Your task to perform on an android device: set the stopwatch Image 0: 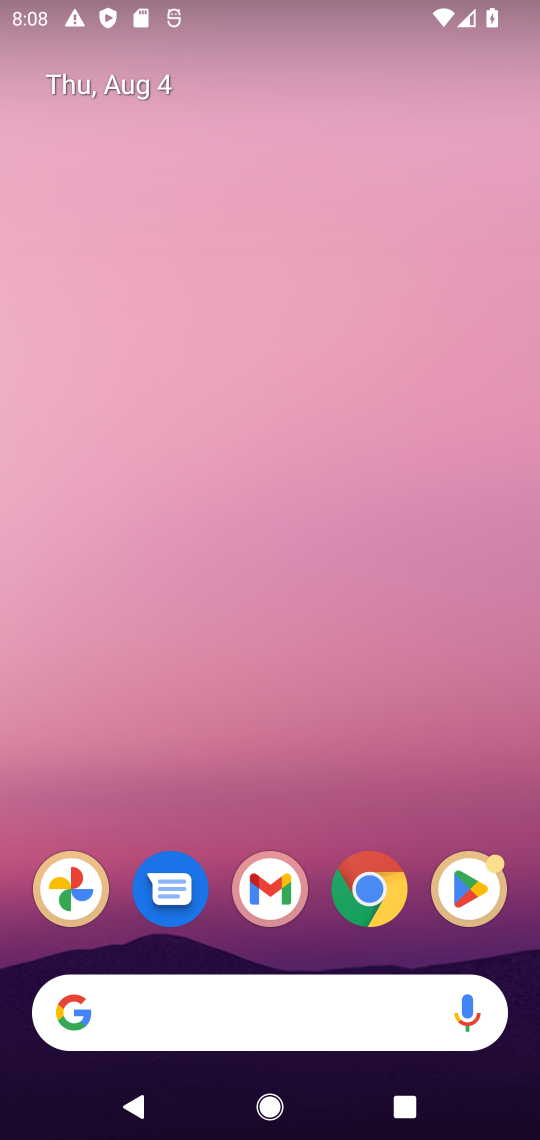
Step 0: drag from (311, 818) to (260, 60)
Your task to perform on an android device: set the stopwatch Image 1: 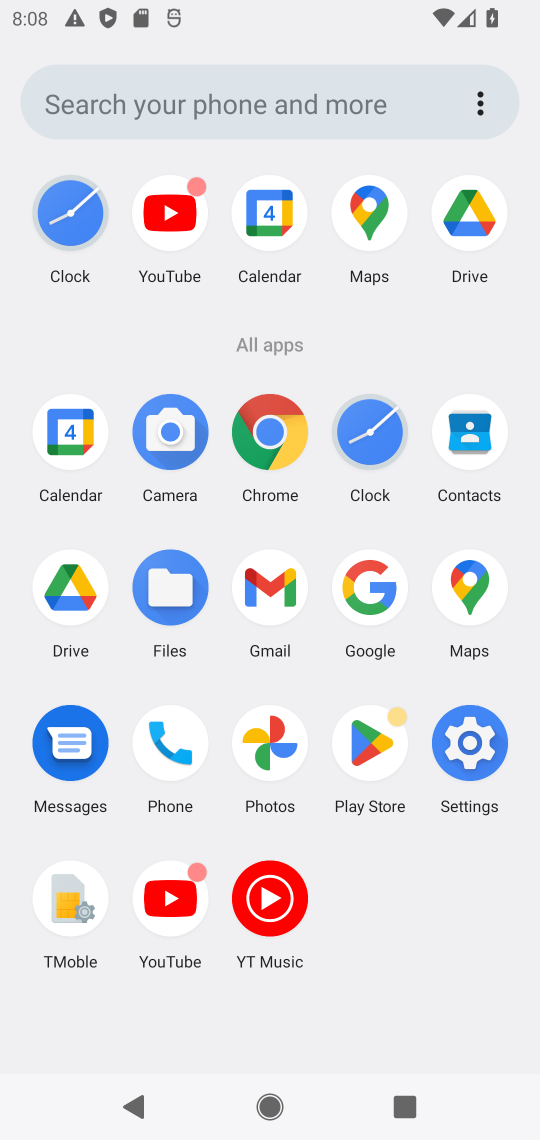
Step 1: click (378, 444)
Your task to perform on an android device: set the stopwatch Image 2: 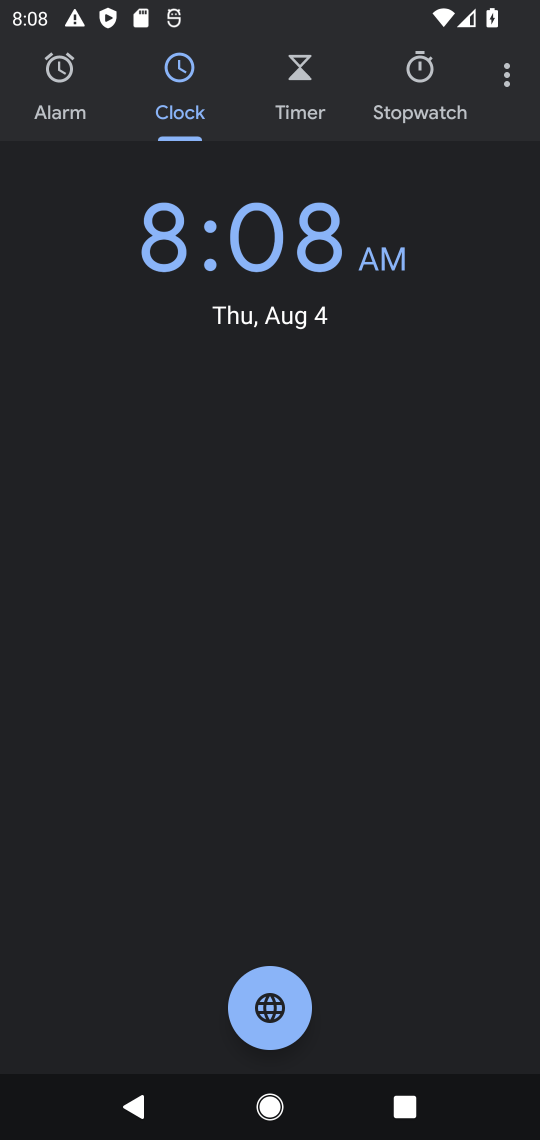
Step 2: click (377, 106)
Your task to perform on an android device: set the stopwatch Image 3: 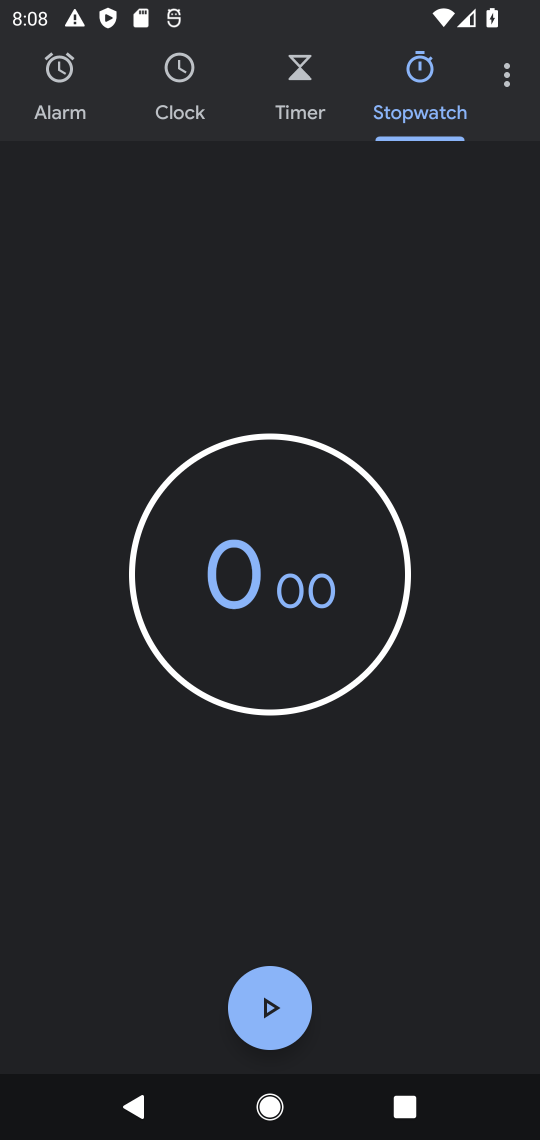
Step 3: click (258, 999)
Your task to perform on an android device: set the stopwatch Image 4: 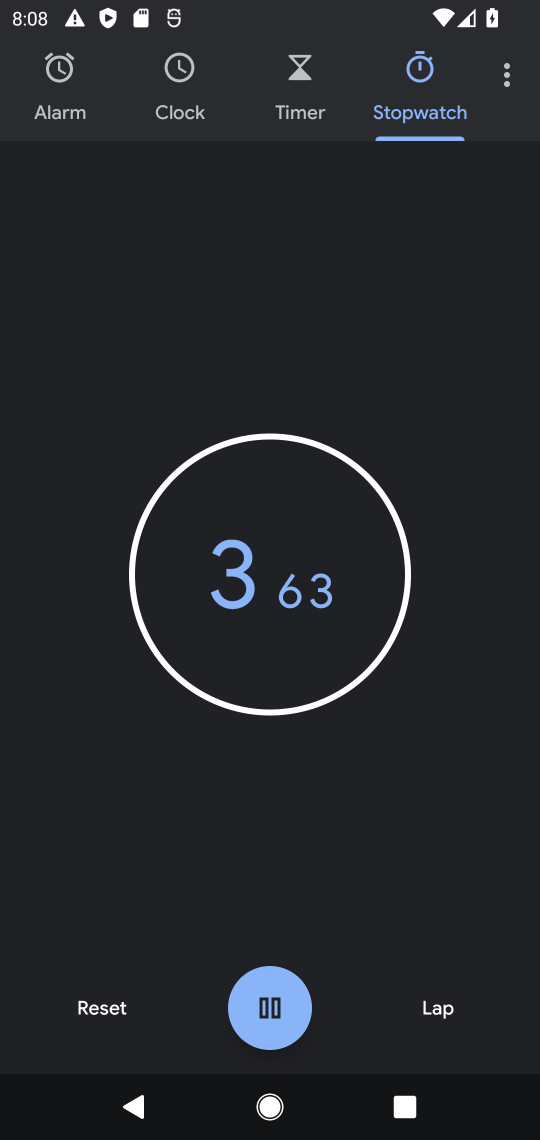
Step 4: click (258, 999)
Your task to perform on an android device: set the stopwatch Image 5: 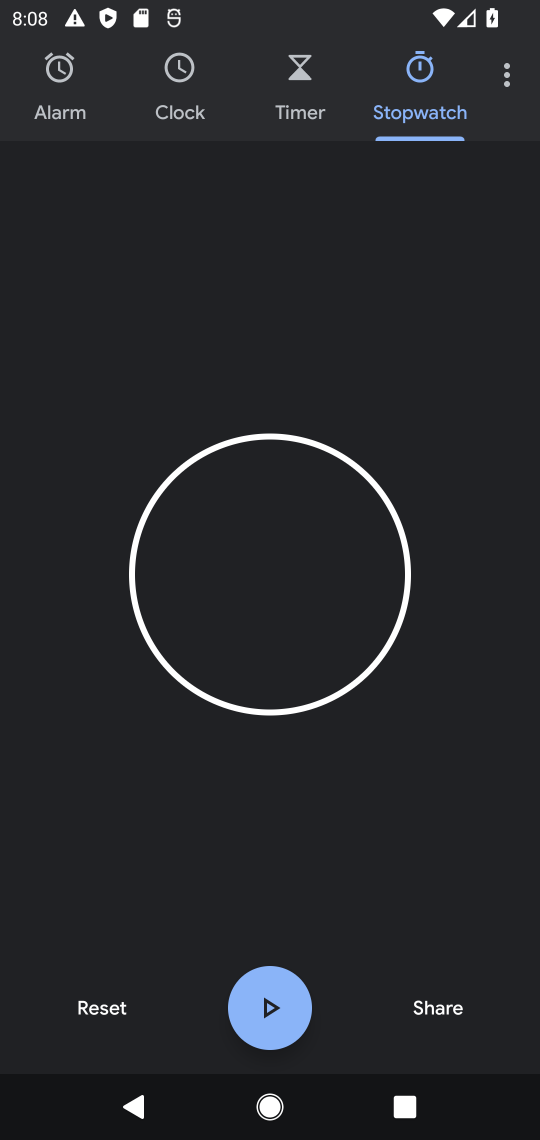
Step 5: task complete